Your task to perform on an android device: Go to display settings Image 0: 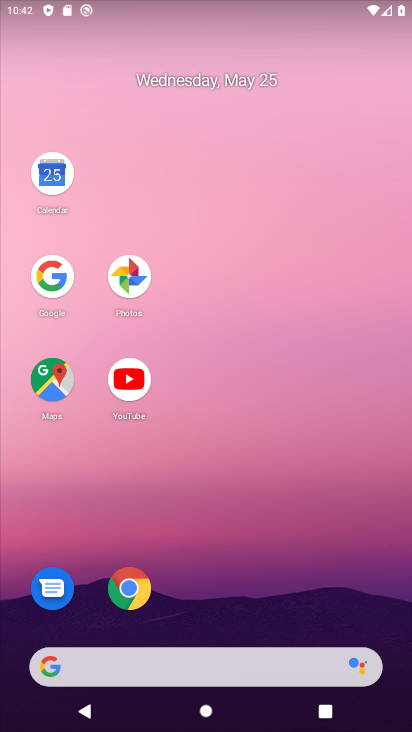
Step 0: drag from (319, 610) to (392, 114)
Your task to perform on an android device: Go to display settings Image 1: 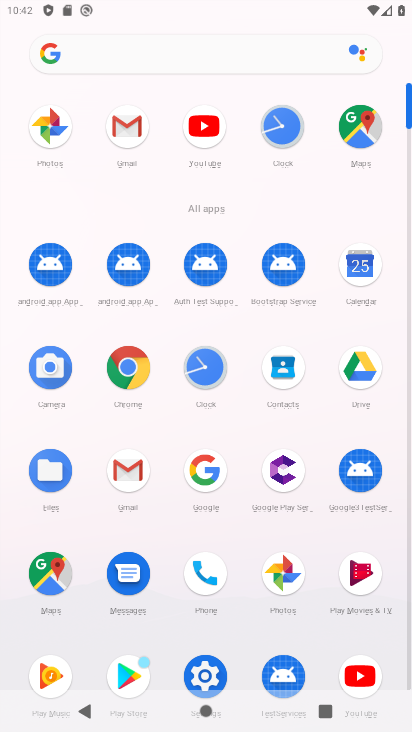
Step 1: drag from (207, 667) to (47, 199)
Your task to perform on an android device: Go to display settings Image 2: 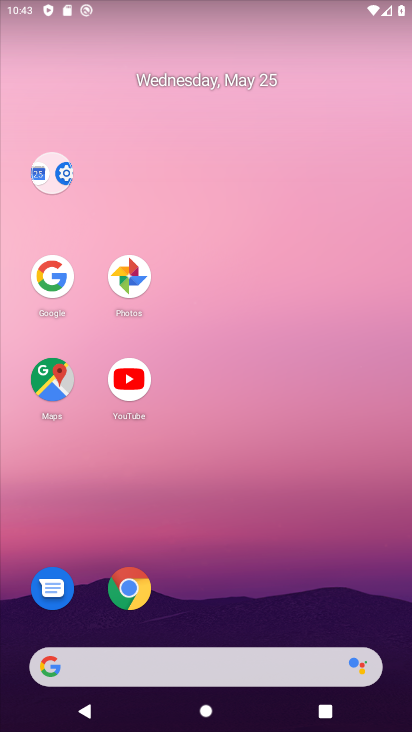
Step 2: click (49, 184)
Your task to perform on an android device: Go to display settings Image 3: 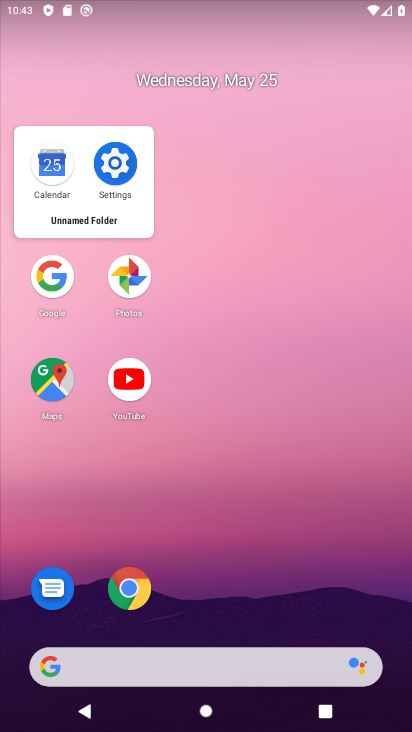
Step 3: drag from (50, 162) to (156, 166)
Your task to perform on an android device: Go to display settings Image 4: 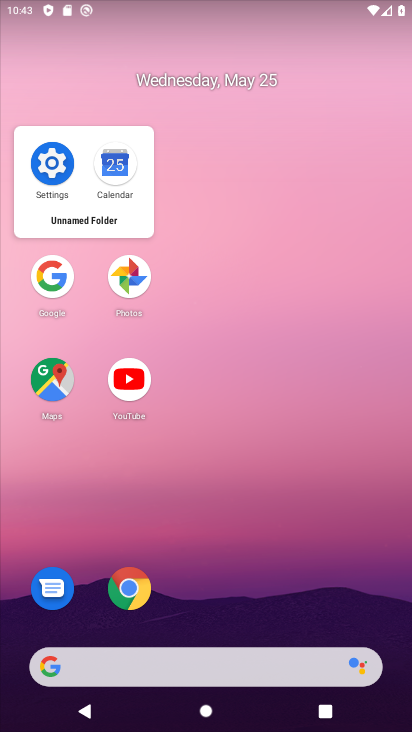
Step 4: drag from (114, 158) to (197, 167)
Your task to perform on an android device: Go to display settings Image 5: 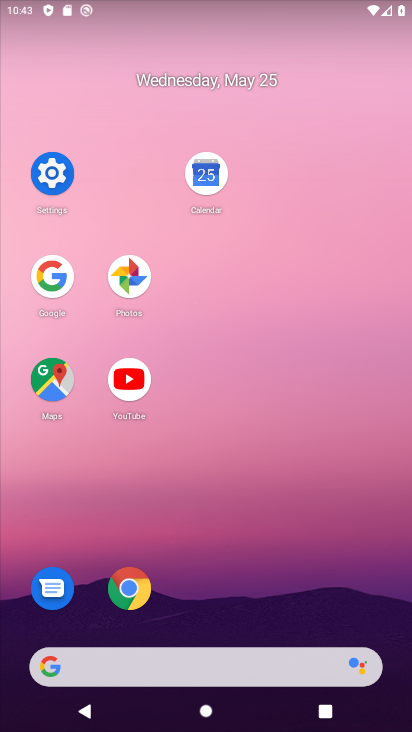
Step 5: click (63, 193)
Your task to perform on an android device: Go to display settings Image 6: 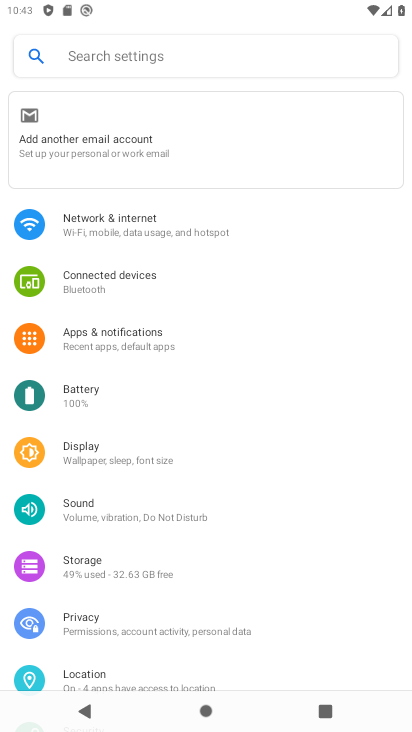
Step 6: click (136, 451)
Your task to perform on an android device: Go to display settings Image 7: 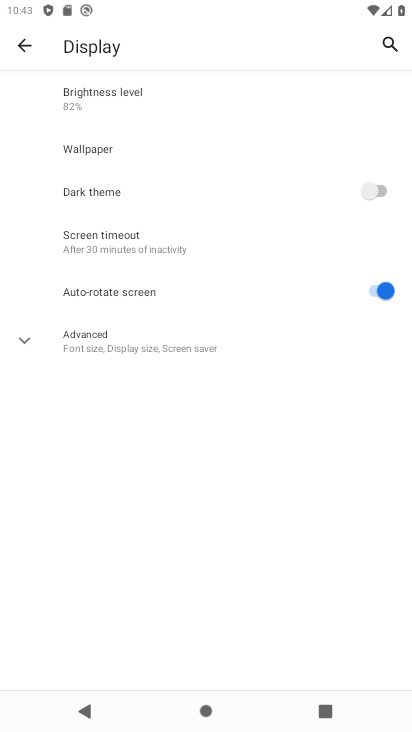
Step 7: task complete